Your task to perform on an android device: Is it going to rain today? Image 0: 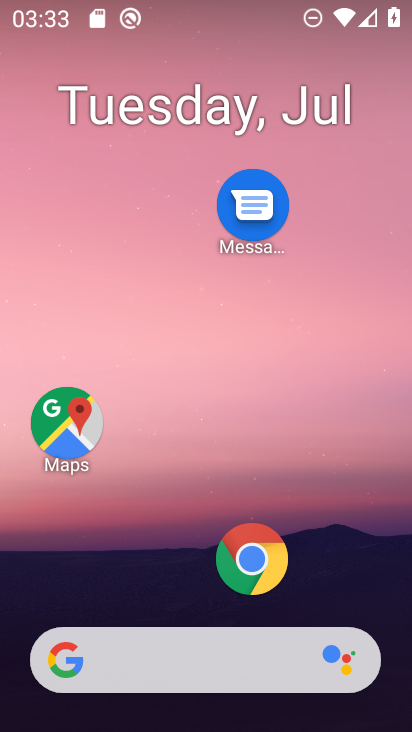
Step 0: click (162, 657)
Your task to perform on an android device: Is it going to rain today? Image 1: 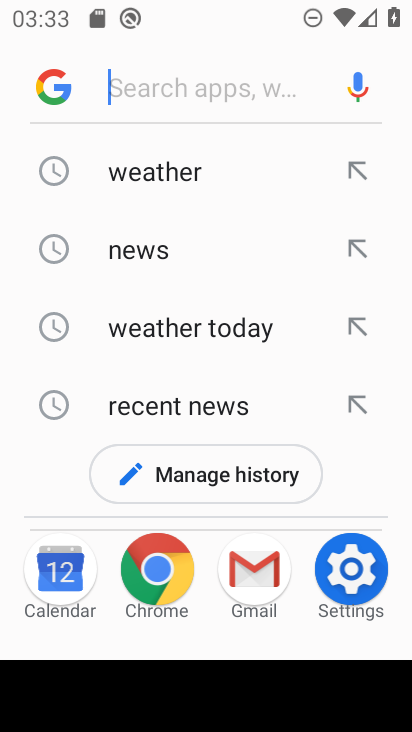
Step 1: click (169, 172)
Your task to perform on an android device: Is it going to rain today? Image 2: 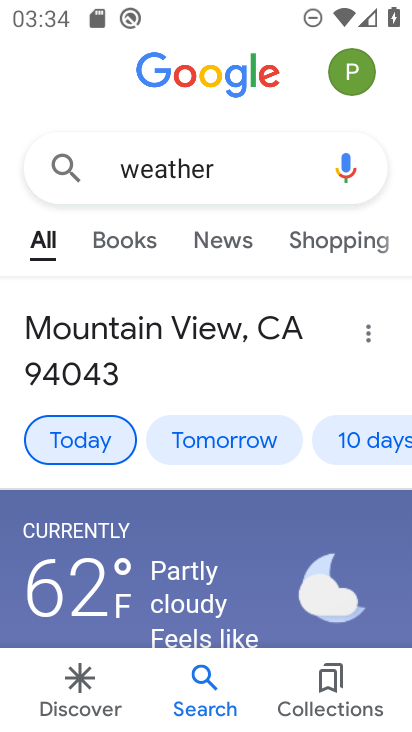
Step 2: task complete